Your task to perform on an android device: Go to Google Image 0: 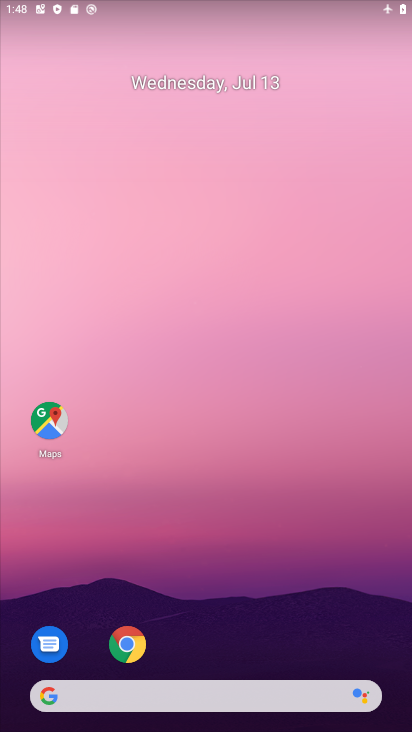
Step 0: drag from (333, 640) to (288, 104)
Your task to perform on an android device: Go to Google Image 1: 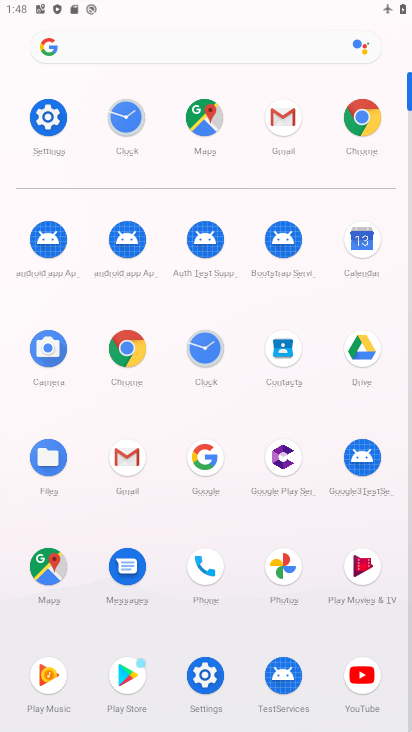
Step 1: click (214, 459)
Your task to perform on an android device: Go to Google Image 2: 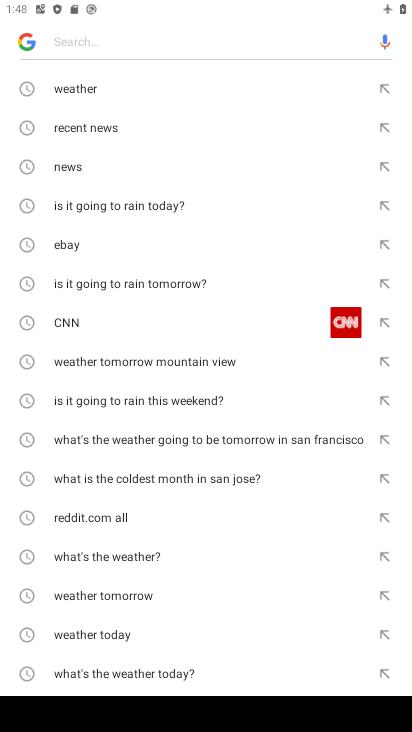
Step 2: task complete